Your task to perform on an android device: install app "Google News" Image 0: 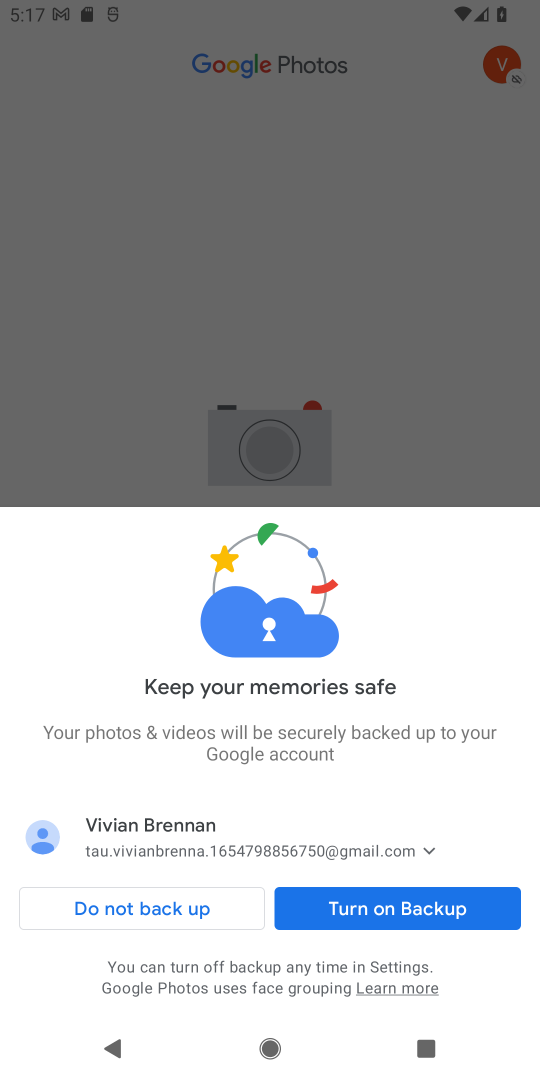
Step 0: press home button
Your task to perform on an android device: install app "Google News" Image 1: 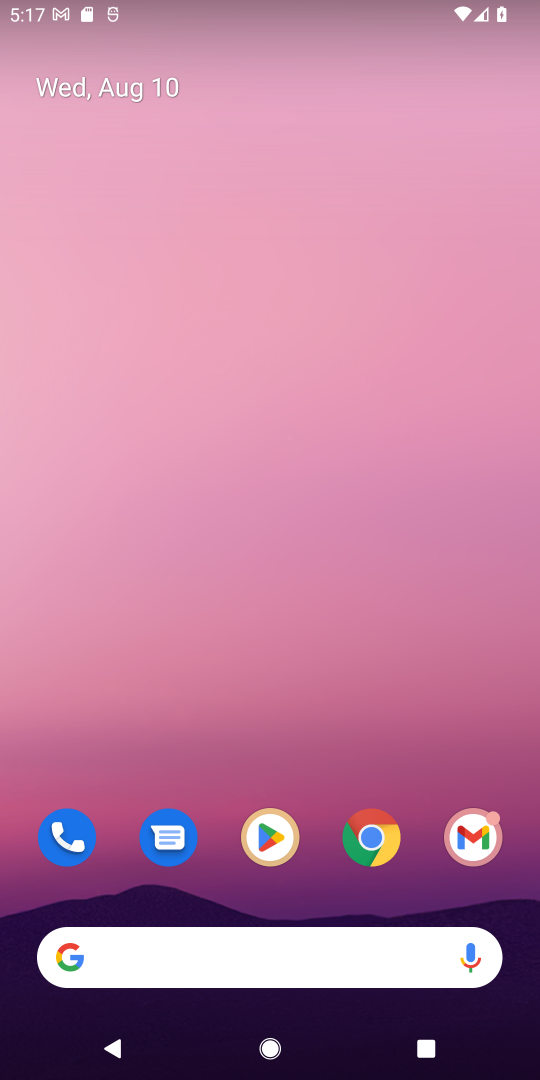
Step 1: click (259, 841)
Your task to perform on an android device: install app "Google News" Image 2: 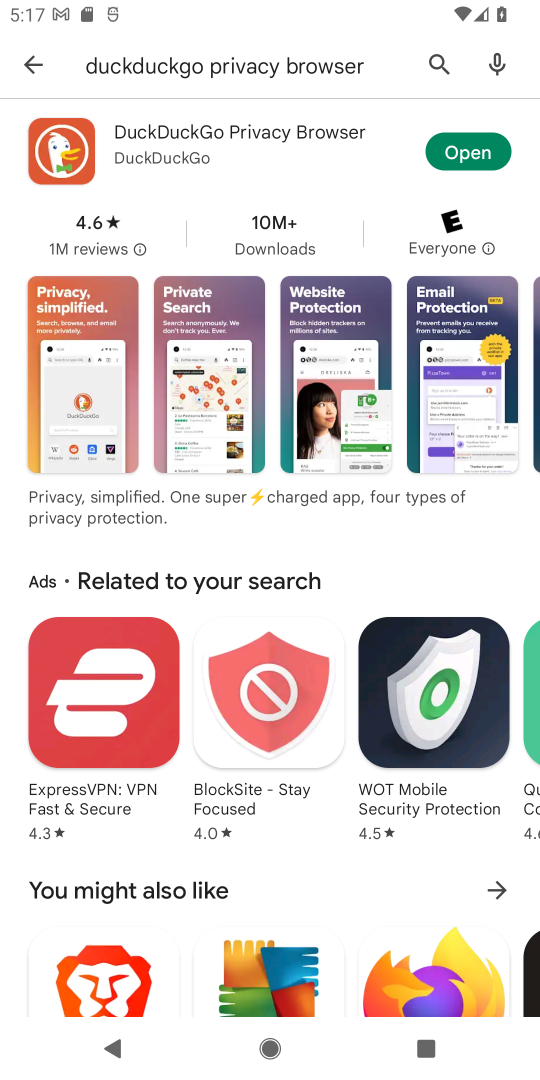
Step 2: click (434, 63)
Your task to perform on an android device: install app "Google News" Image 3: 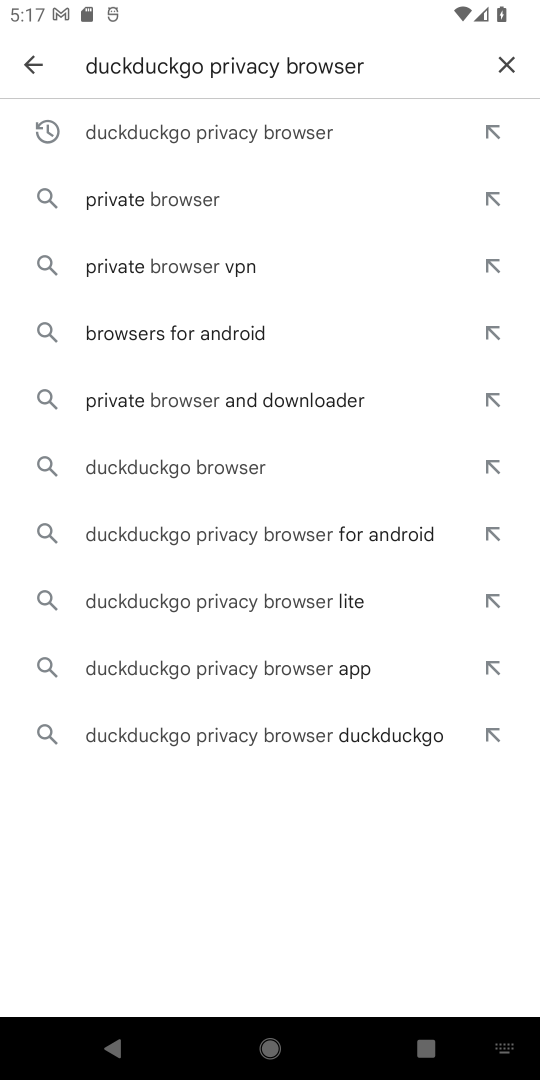
Step 3: click (507, 58)
Your task to perform on an android device: install app "Google News" Image 4: 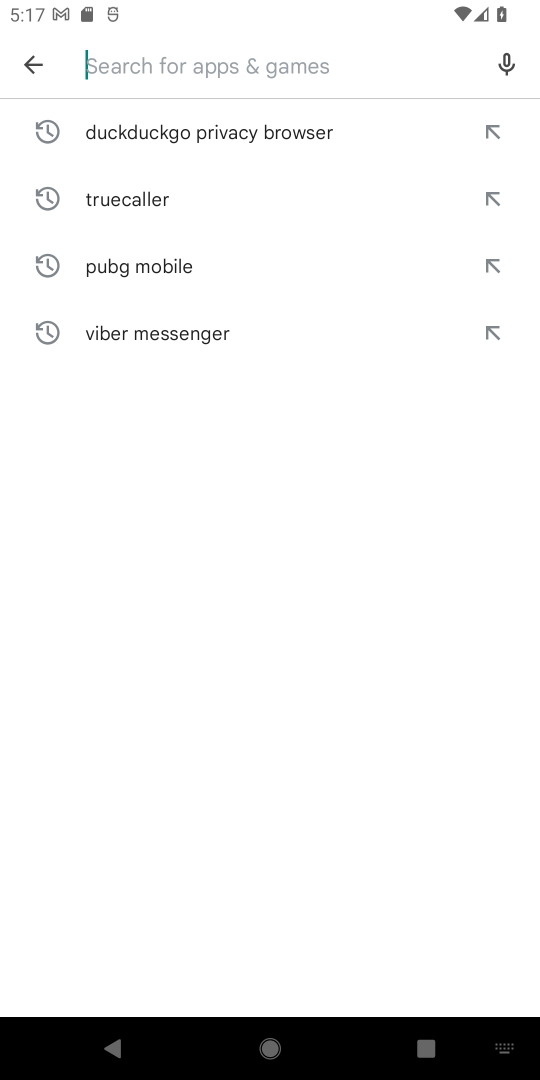
Step 4: type "Google News"
Your task to perform on an android device: install app "Google News" Image 5: 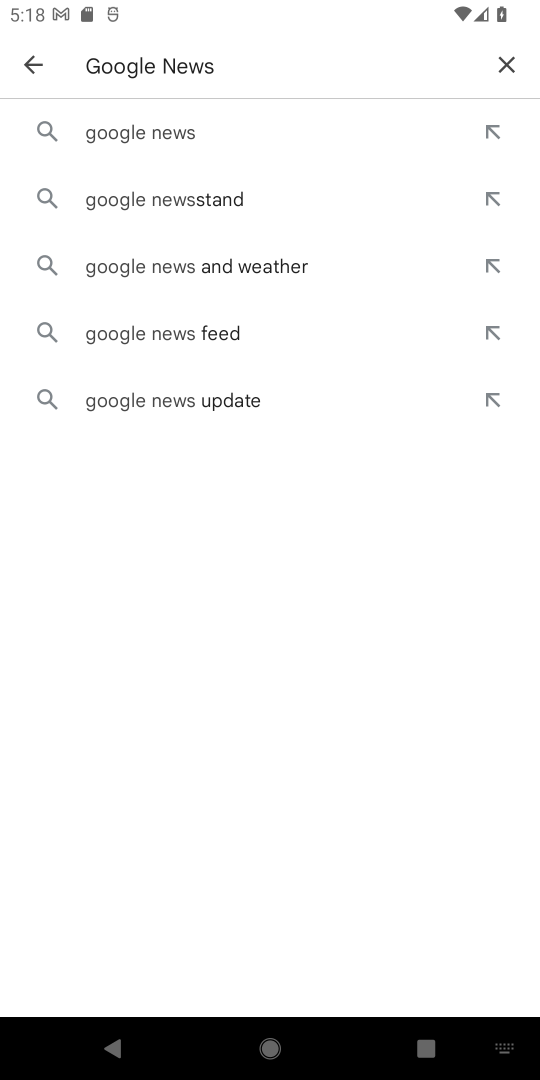
Step 5: click (149, 118)
Your task to perform on an android device: install app "Google News" Image 6: 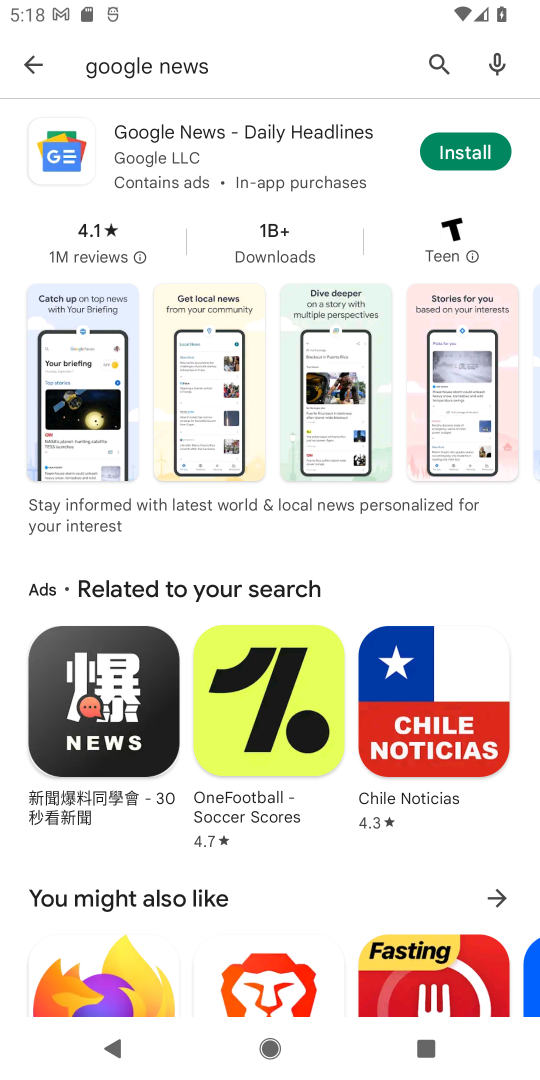
Step 6: click (466, 151)
Your task to perform on an android device: install app "Google News" Image 7: 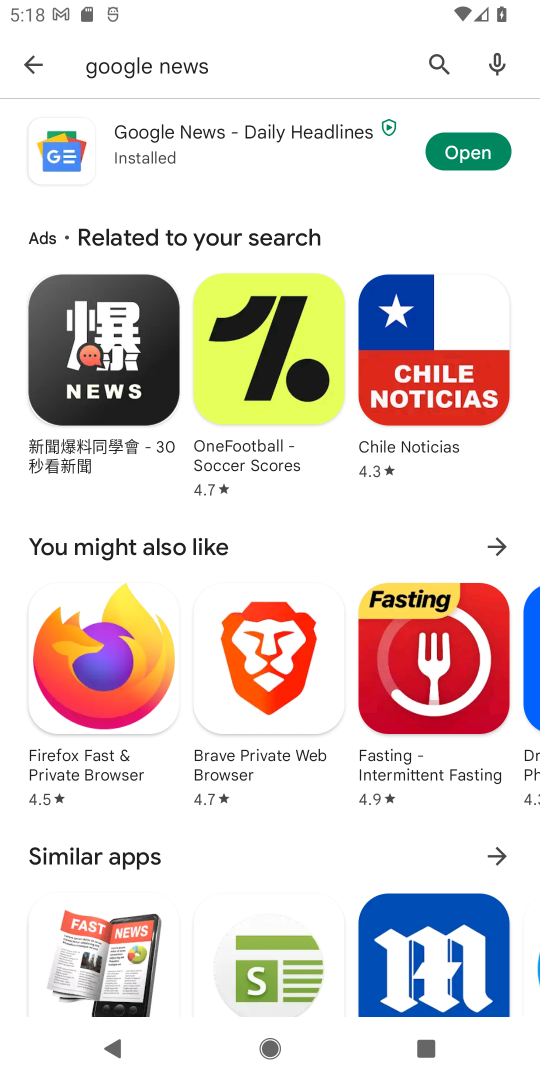
Step 7: task complete